Your task to perform on an android device: Go to Google maps Image 0: 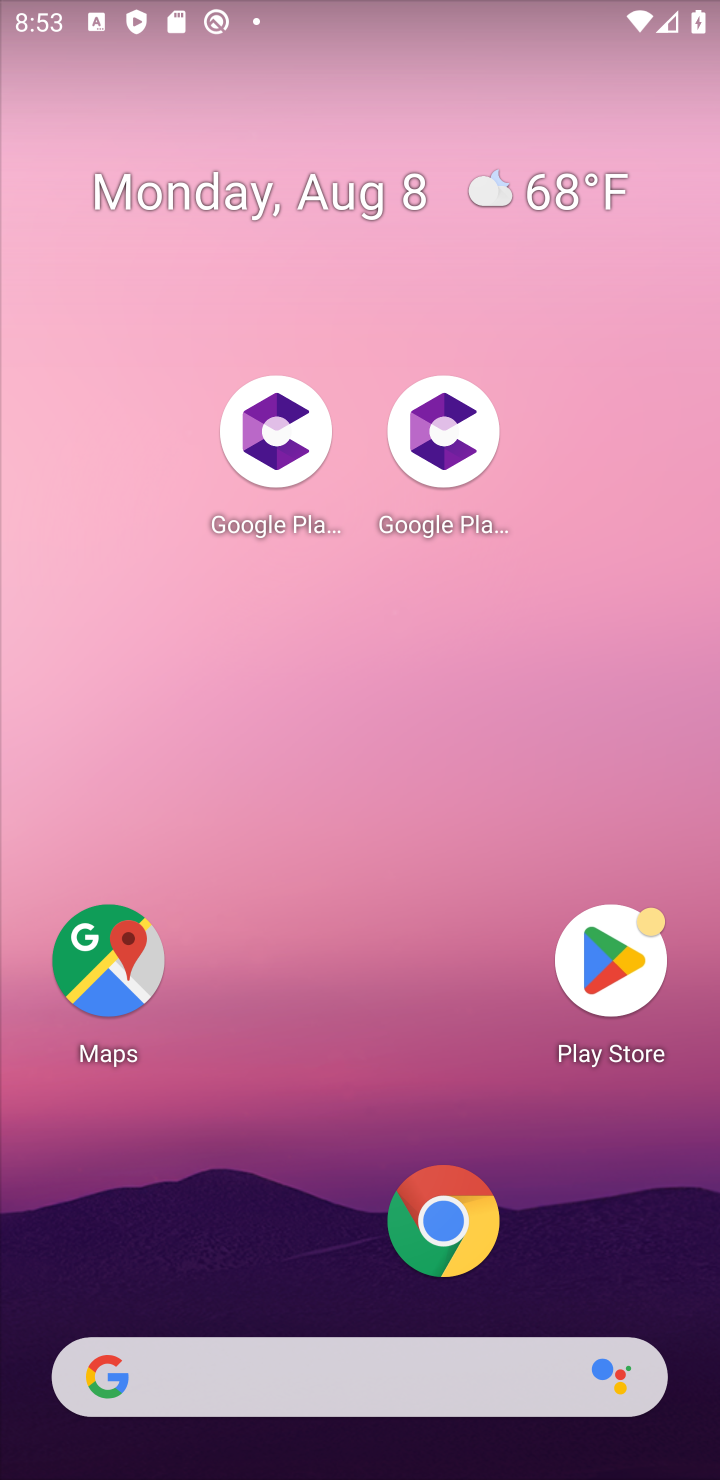
Step 0: click (139, 954)
Your task to perform on an android device: Go to Google maps Image 1: 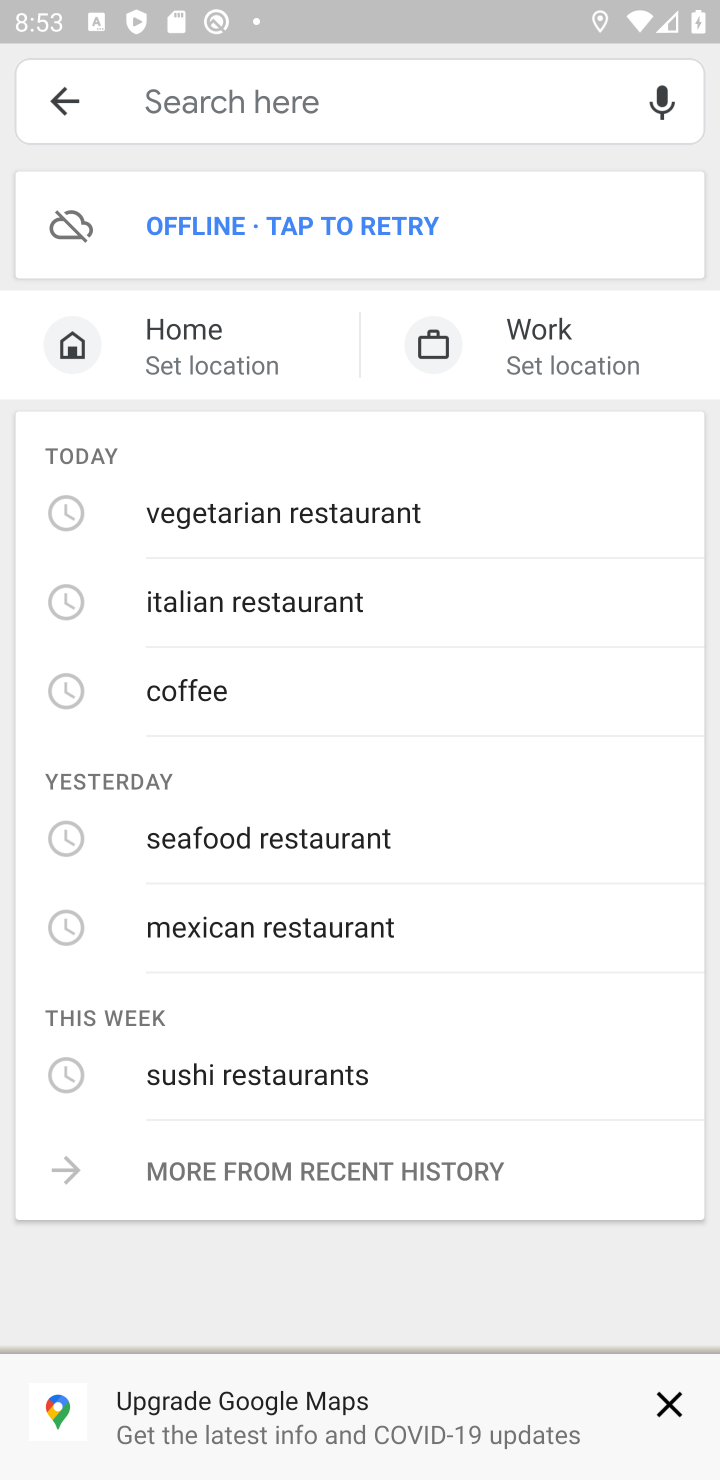
Step 1: press home button
Your task to perform on an android device: Go to Google maps Image 2: 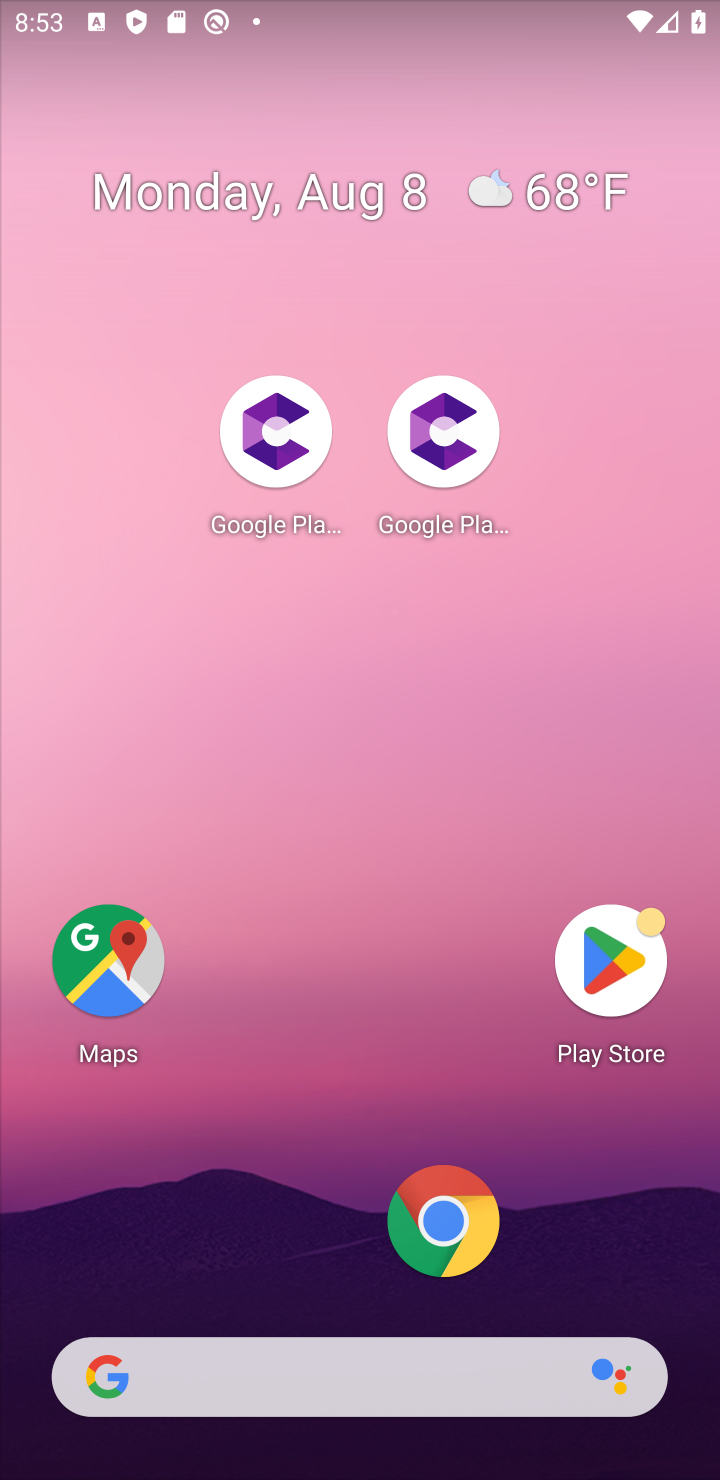
Step 2: click (111, 934)
Your task to perform on an android device: Go to Google maps Image 3: 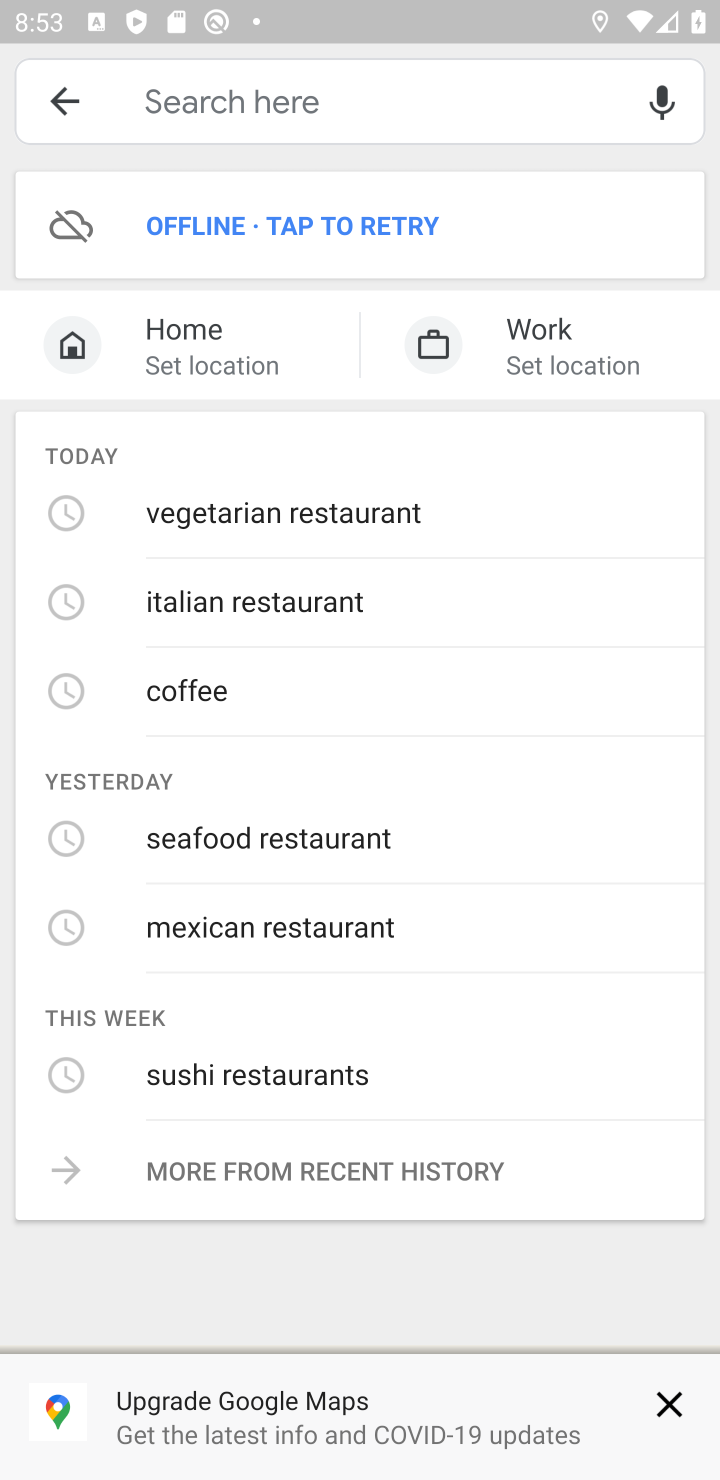
Step 3: click (337, 218)
Your task to perform on an android device: Go to Google maps Image 4: 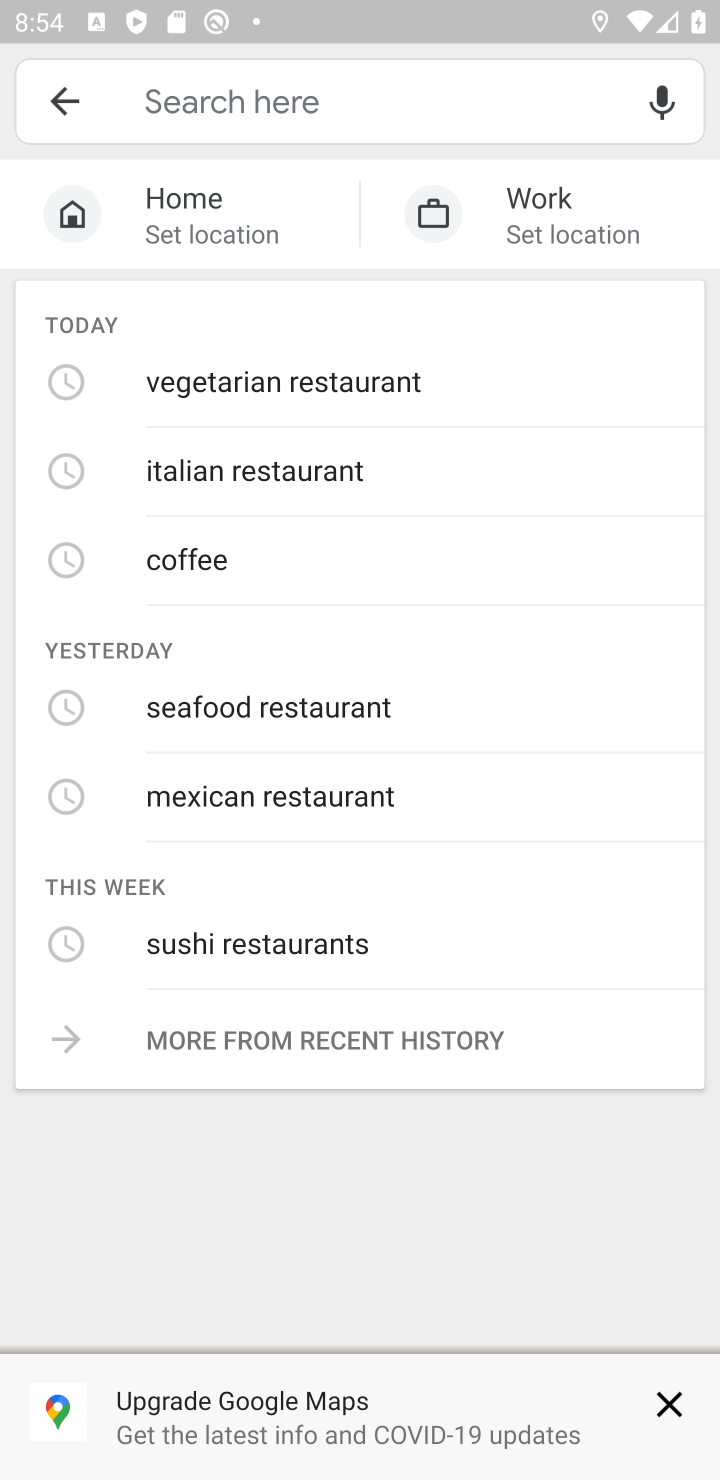
Step 4: click (54, 118)
Your task to perform on an android device: Go to Google maps Image 5: 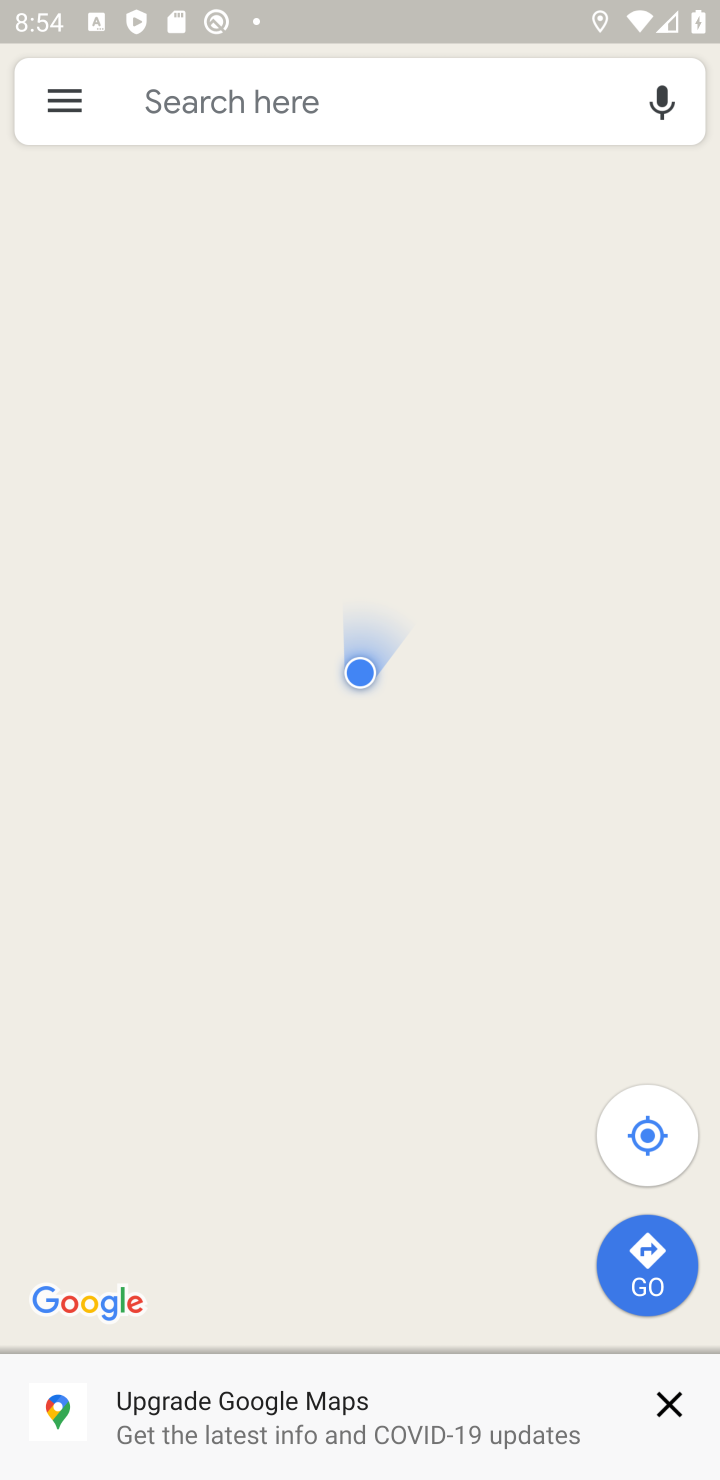
Step 5: task complete